Your task to perform on an android device: When is my next meeting? Image 0: 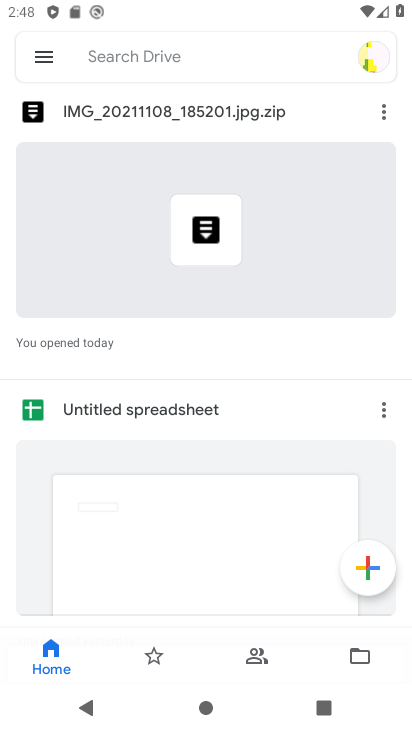
Step 0: press home button
Your task to perform on an android device: When is my next meeting? Image 1: 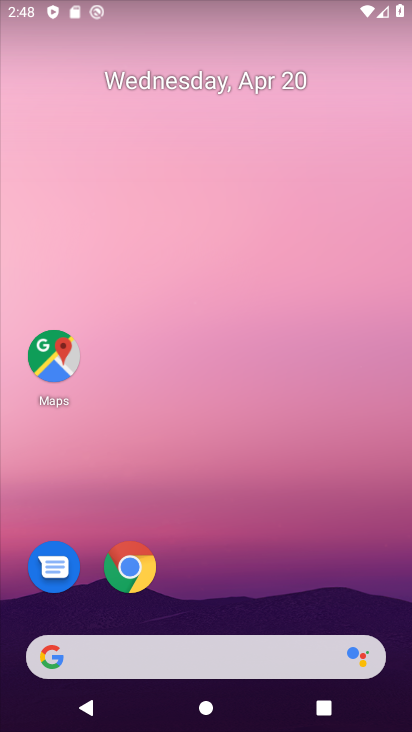
Step 1: drag from (251, 594) to (209, 160)
Your task to perform on an android device: When is my next meeting? Image 2: 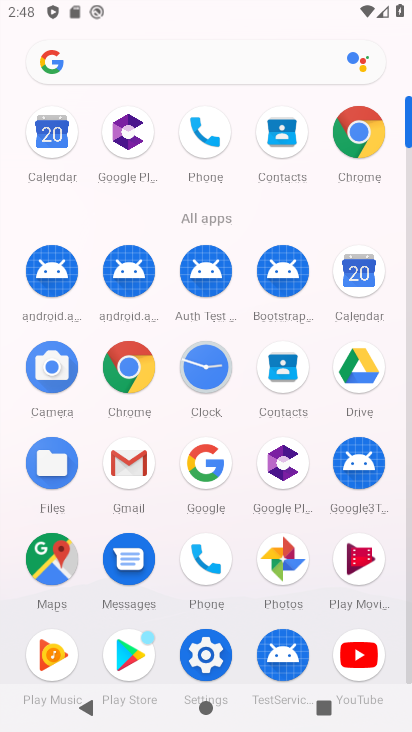
Step 2: click (370, 294)
Your task to perform on an android device: When is my next meeting? Image 3: 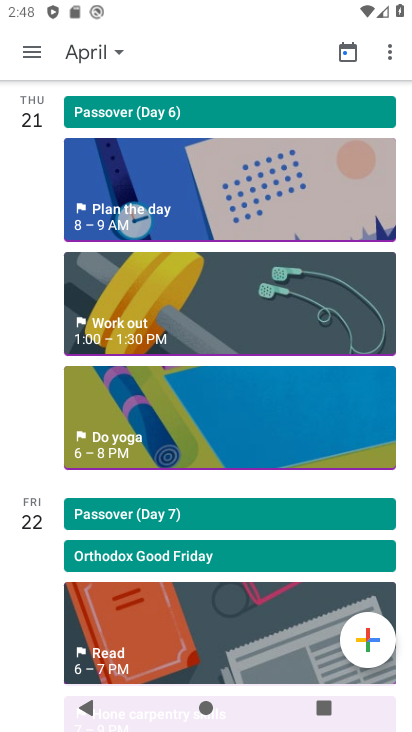
Step 3: click (110, 44)
Your task to perform on an android device: When is my next meeting? Image 4: 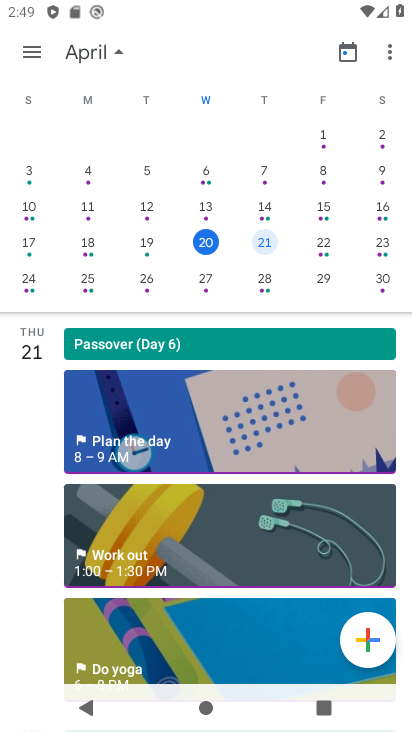
Step 4: click (207, 251)
Your task to perform on an android device: When is my next meeting? Image 5: 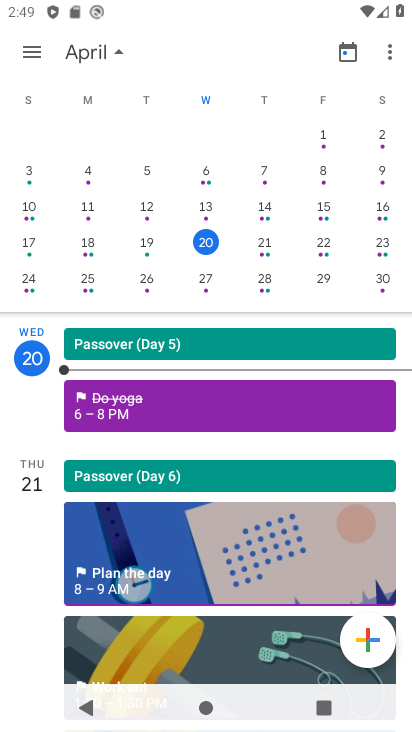
Step 5: click (115, 53)
Your task to perform on an android device: When is my next meeting? Image 6: 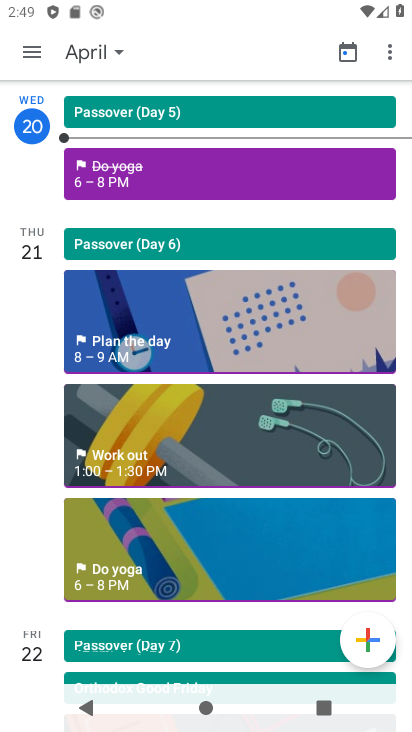
Step 6: task complete